Your task to perform on an android device: change notifications settings Image 0: 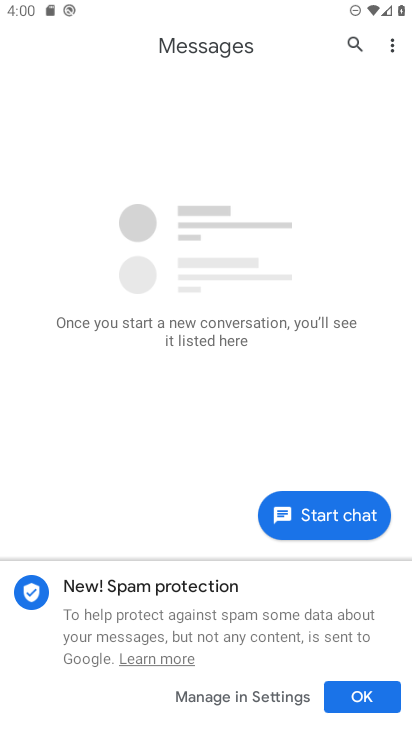
Step 0: press home button
Your task to perform on an android device: change notifications settings Image 1: 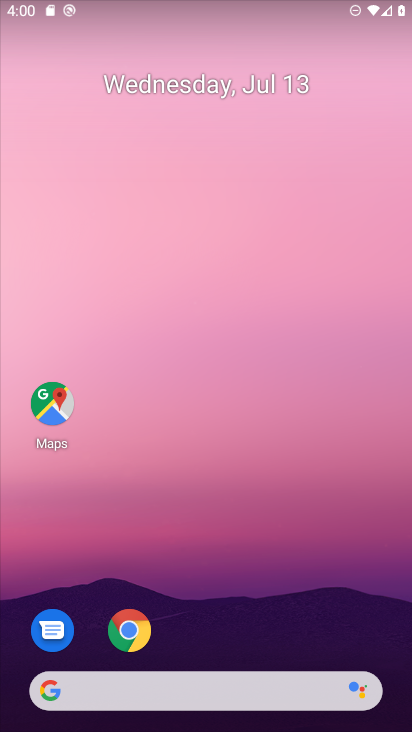
Step 1: drag from (139, 427) to (102, 90)
Your task to perform on an android device: change notifications settings Image 2: 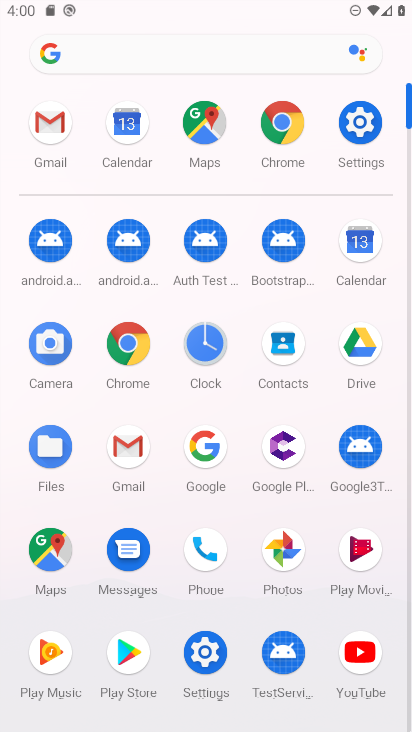
Step 2: click (353, 126)
Your task to perform on an android device: change notifications settings Image 3: 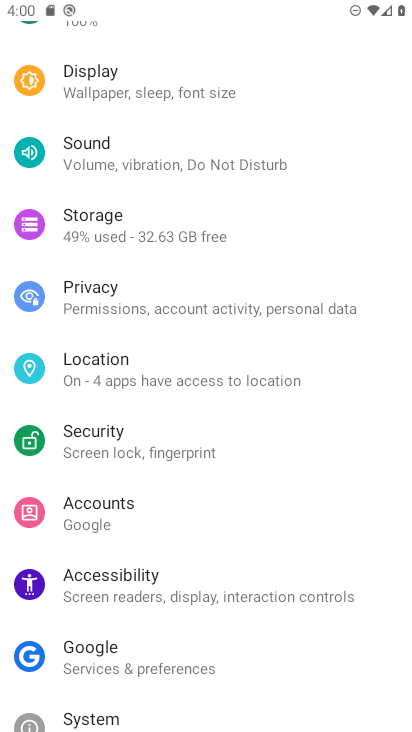
Step 3: drag from (171, 550) to (161, 267)
Your task to perform on an android device: change notifications settings Image 4: 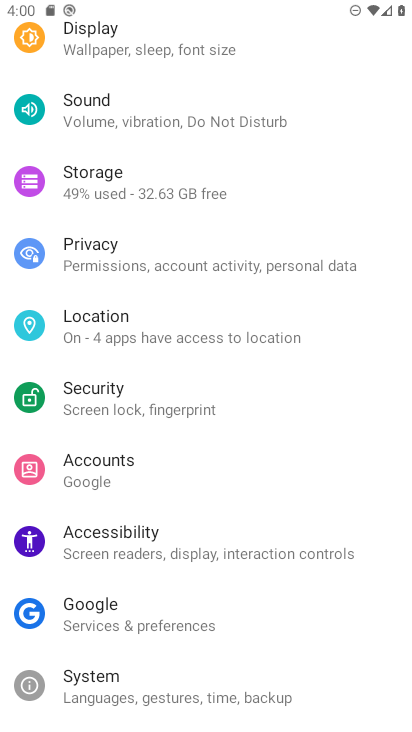
Step 4: drag from (199, 4) to (252, 376)
Your task to perform on an android device: change notifications settings Image 5: 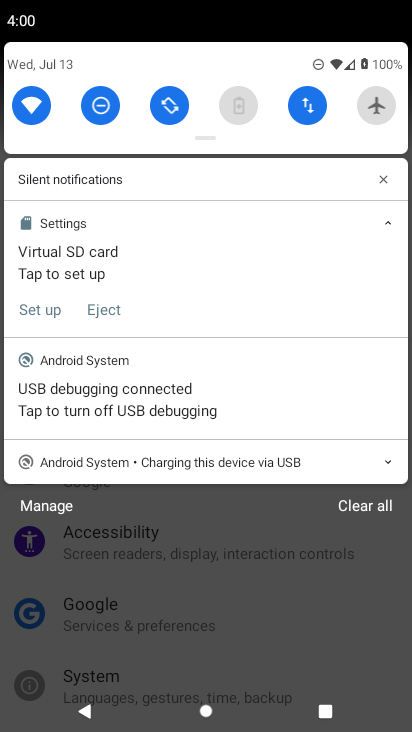
Step 5: press back button
Your task to perform on an android device: change notifications settings Image 6: 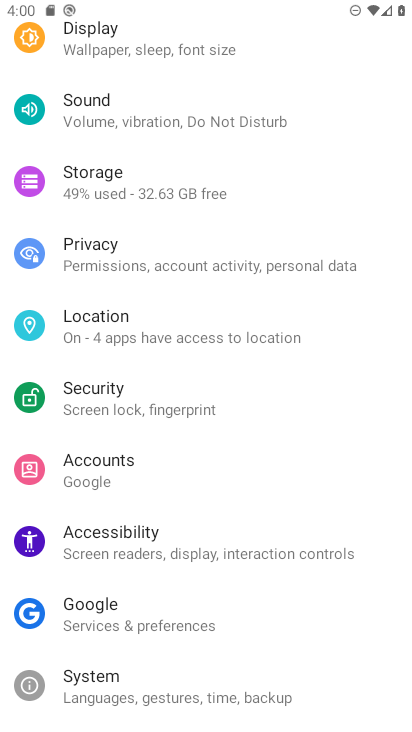
Step 6: drag from (198, 258) to (181, 456)
Your task to perform on an android device: change notifications settings Image 7: 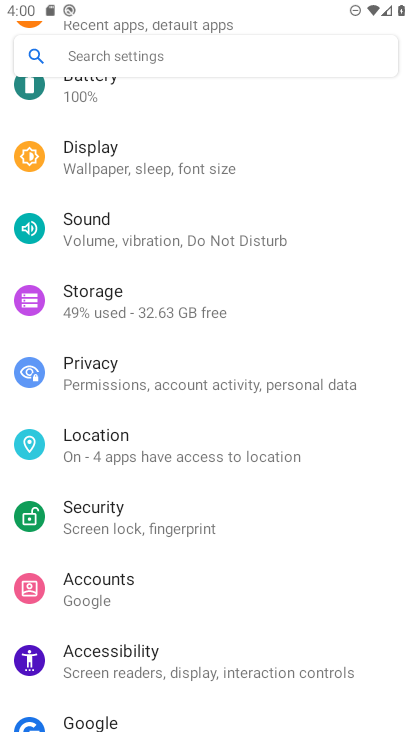
Step 7: drag from (173, 362) to (174, 588)
Your task to perform on an android device: change notifications settings Image 8: 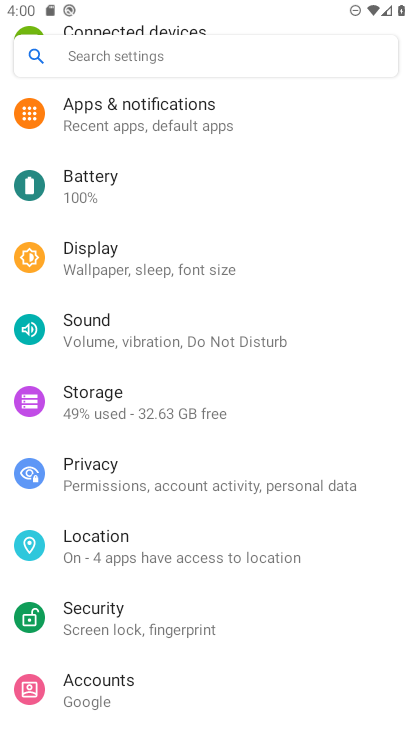
Step 8: click (161, 113)
Your task to perform on an android device: change notifications settings Image 9: 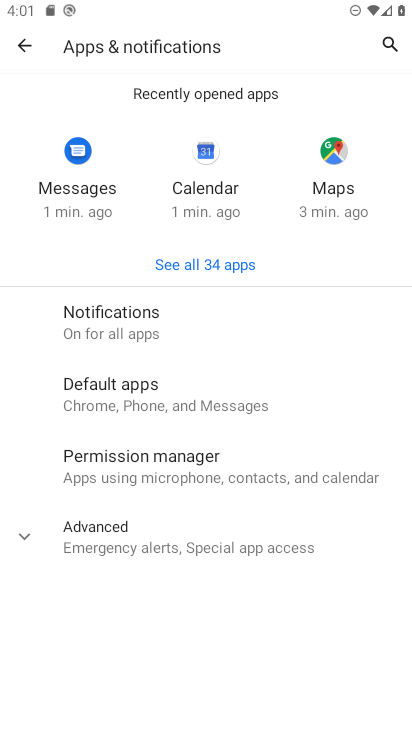
Step 9: click (86, 333)
Your task to perform on an android device: change notifications settings Image 10: 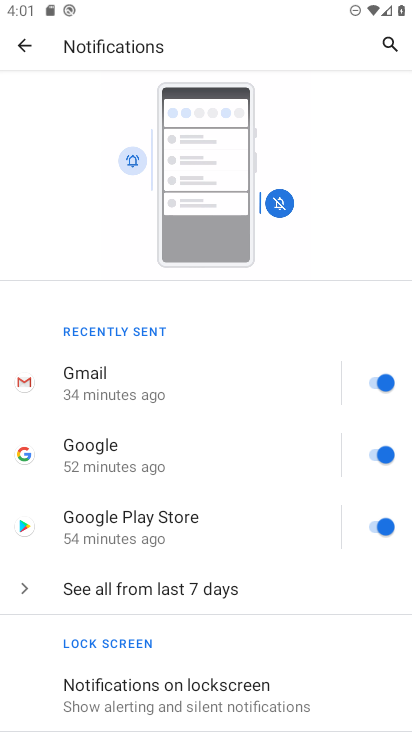
Step 10: drag from (233, 583) to (262, 383)
Your task to perform on an android device: change notifications settings Image 11: 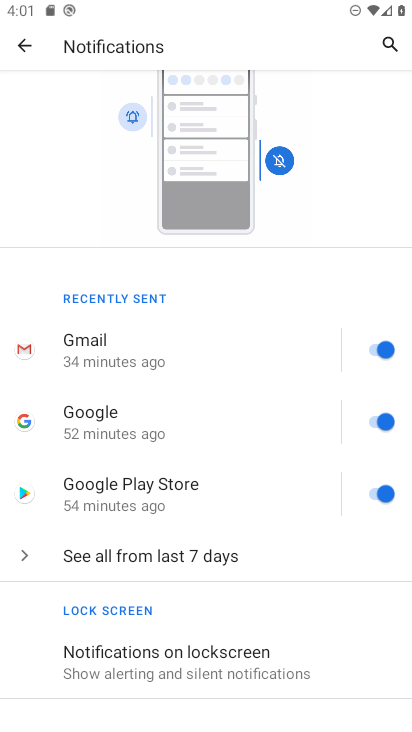
Step 11: drag from (312, 644) to (327, 295)
Your task to perform on an android device: change notifications settings Image 12: 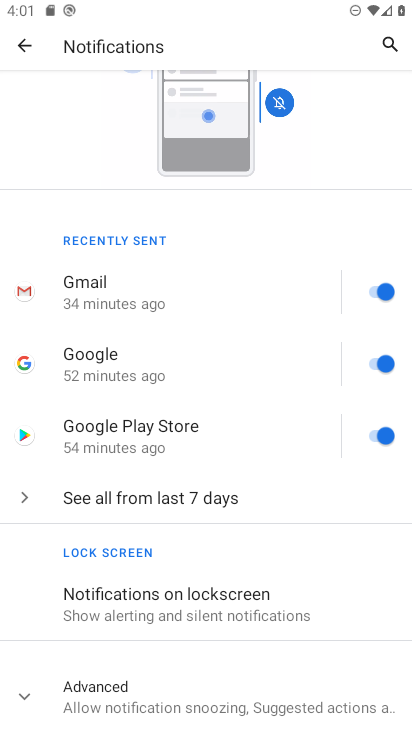
Step 12: click (240, 708)
Your task to perform on an android device: change notifications settings Image 13: 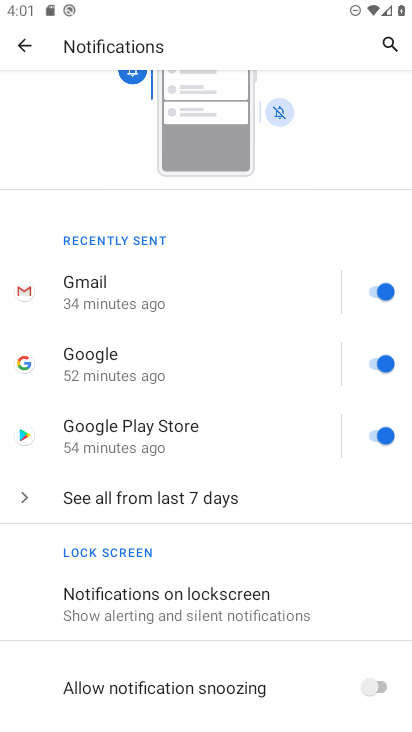
Step 13: drag from (246, 635) to (260, 533)
Your task to perform on an android device: change notifications settings Image 14: 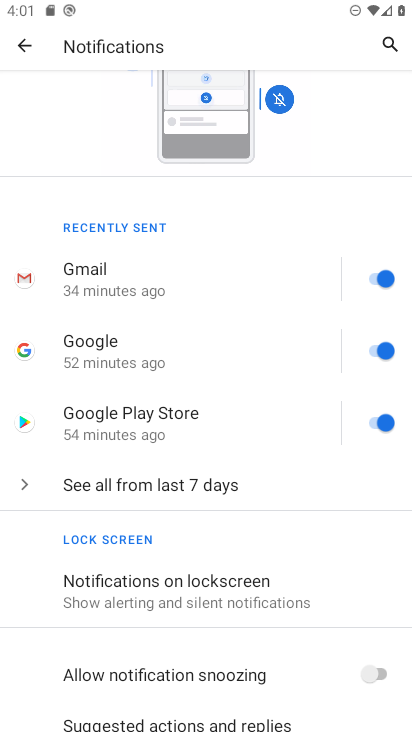
Step 14: drag from (262, 664) to (260, 407)
Your task to perform on an android device: change notifications settings Image 15: 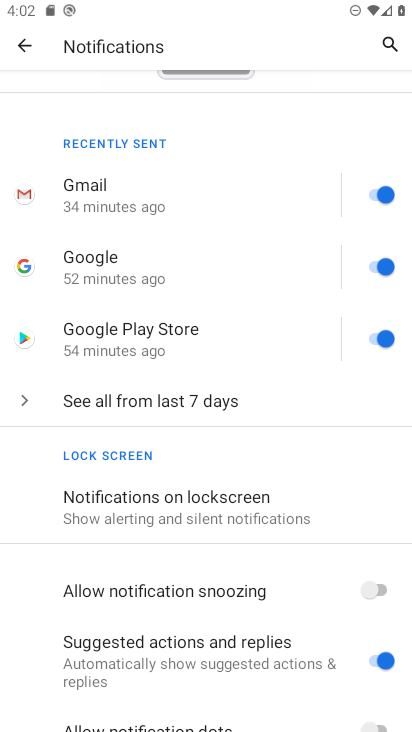
Step 15: drag from (275, 626) to (261, 526)
Your task to perform on an android device: change notifications settings Image 16: 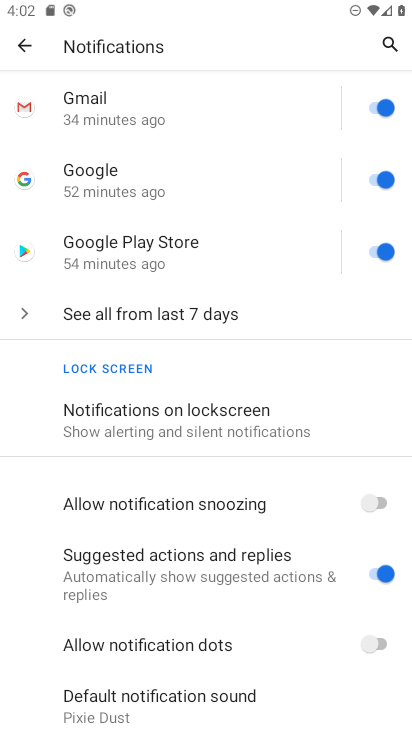
Step 16: click (263, 426)
Your task to perform on an android device: change notifications settings Image 17: 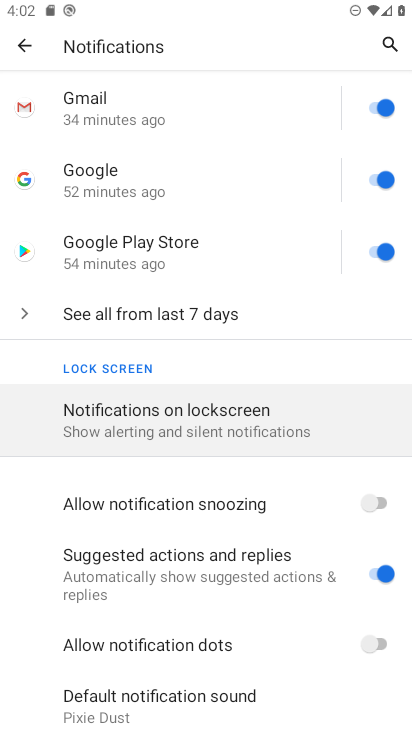
Step 17: click (214, 422)
Your task to perform on an android device: change notifications settings Image 18: 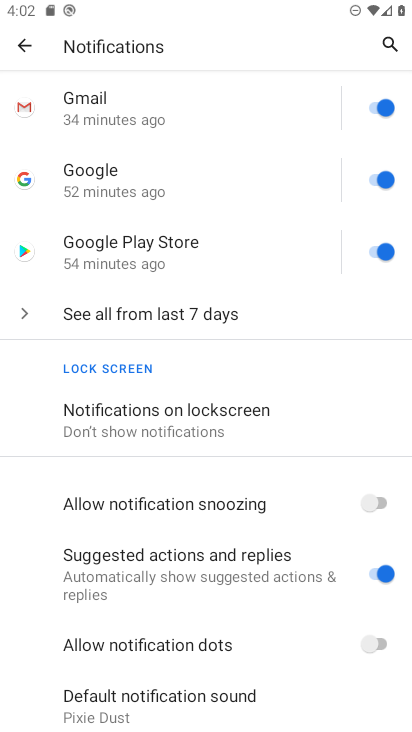
Step 18: click (176, 430)
Your task to perform on an android device: change notifications settings Image 19: 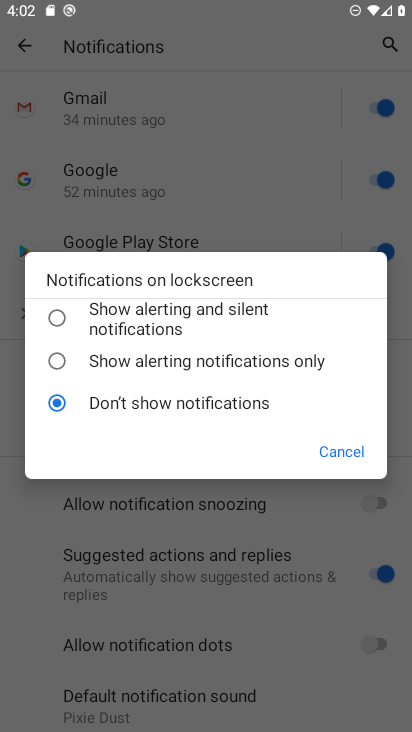
Step 19: click (53, 328)
Your task to perform on an android device: change notifications settings Image 20: 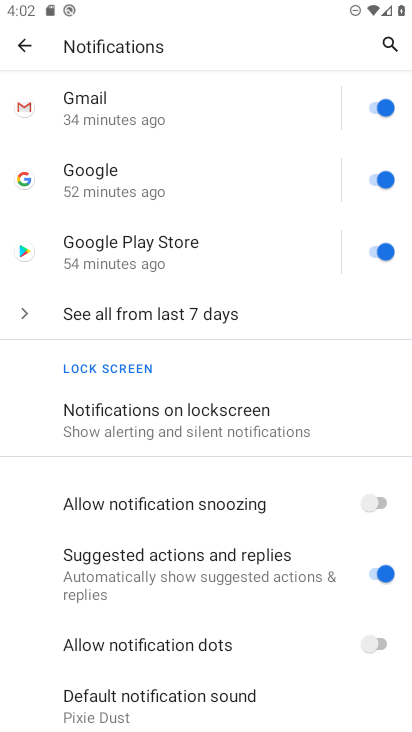
Step 20: task complete